Your task to perform on an android device: Open calendar and show me the fourth week of next month Image 0: 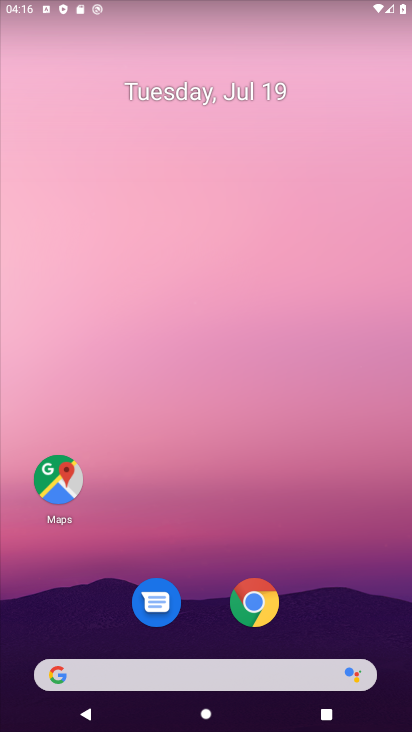
Step 0: click (169, 89)
Your task to perform on an android device: Open calendar and show me the fourth week of next month Image 1: 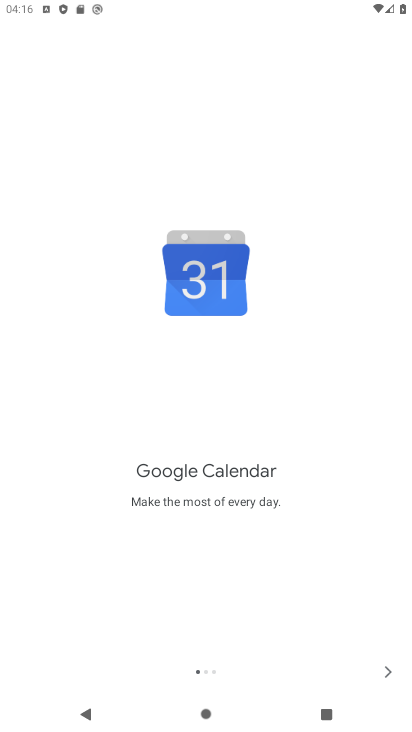
Step 1: click (393, 681)
Your task to perform on an android device: Open calendar and show me the fourth week of next month Image 2: 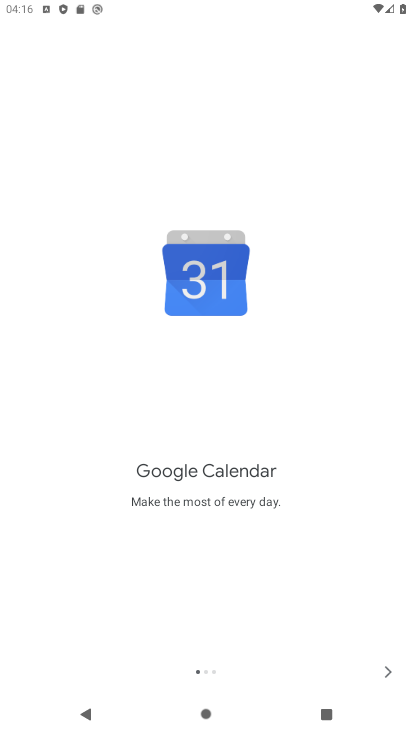
Step 2: click (393, 681)
Your task to perform on an android device: Open calendar and show me the fourth week of next month Image 3: 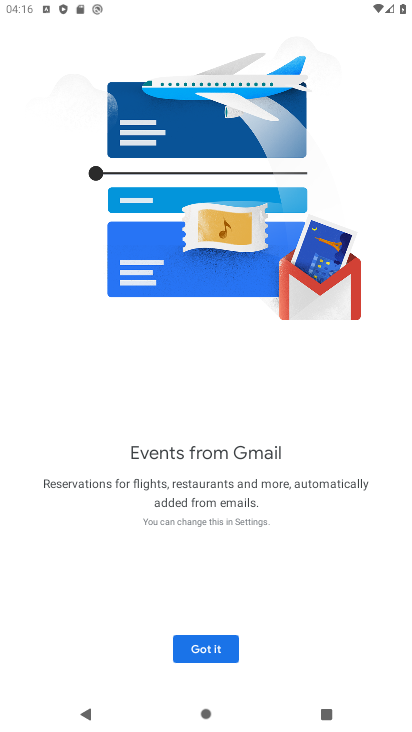
Step 3: click (382, 681)
Your task to perform on an android device: Open calendar and show me the fourth week of next month Image 4: 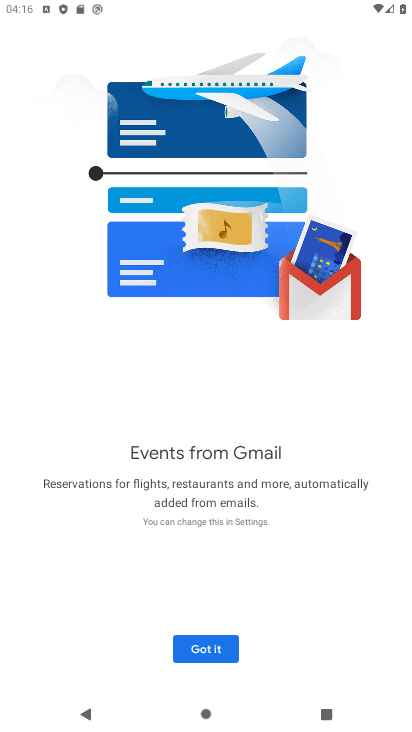
Step 4: click (382, 681)
Your task to perform on an android device: Open calendar and show me the fourth week of next month Image 5: 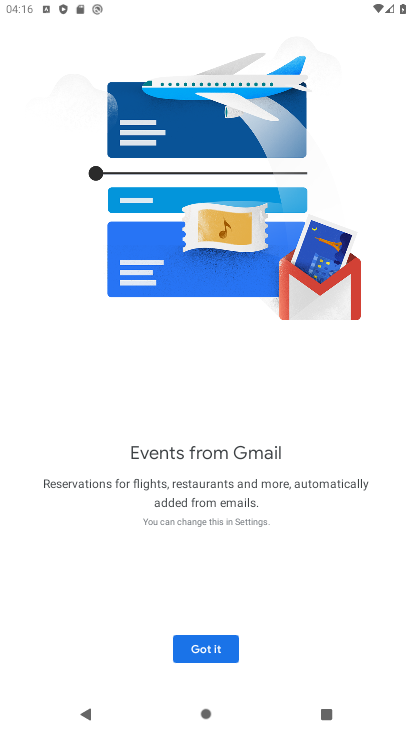
Step 5: click (234, 655)
Your task to perform on an android device: Open calendar and show me the fourth week of next month Image 6: 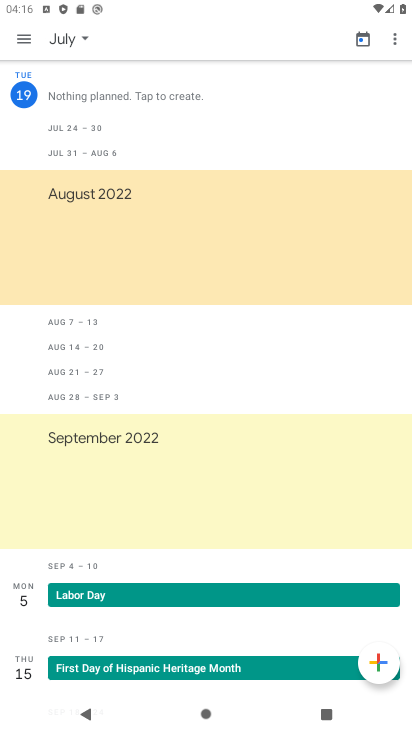
Step 6: click (80, 41)
Your task to perform on an android device: Open calendar and show me the fourth week of next month Image 7: 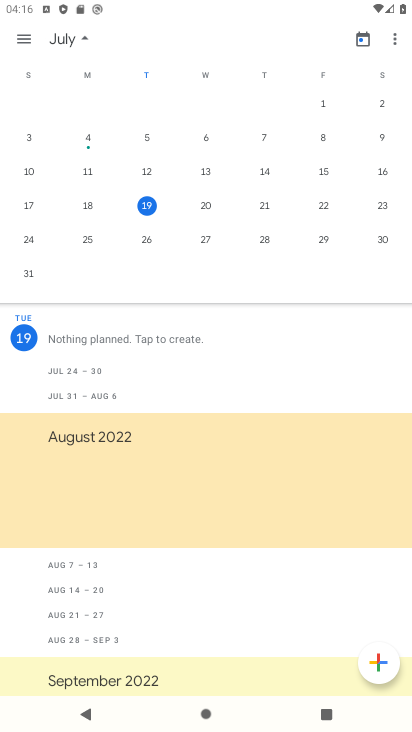
Step 7: click (147, 249)
Your task to perform on an android device: Open calendar and show me the fourth week of next month Image 8: 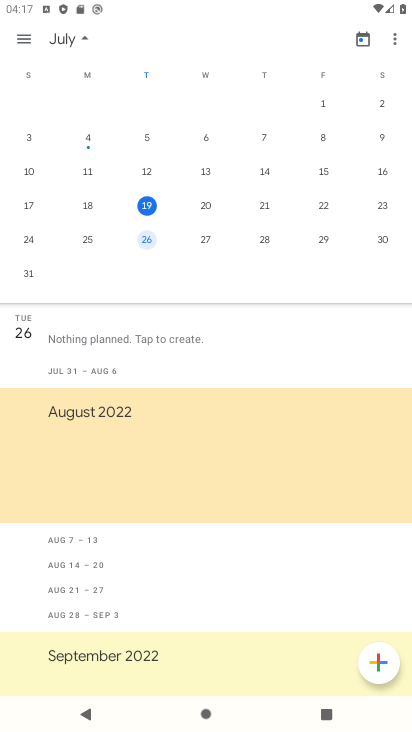
Step 8: task complete